Your task to perform on an android device: snooze an email in the gmail app Image 0: 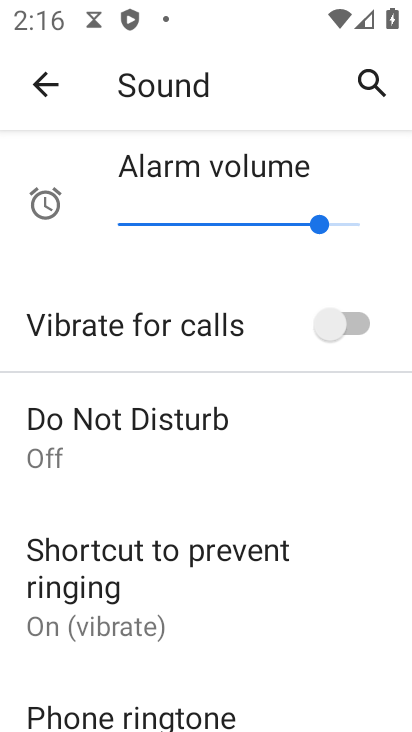
Step 0: press home button
Your task to perform on an android device: snooze an email in the gmail app Image 1: 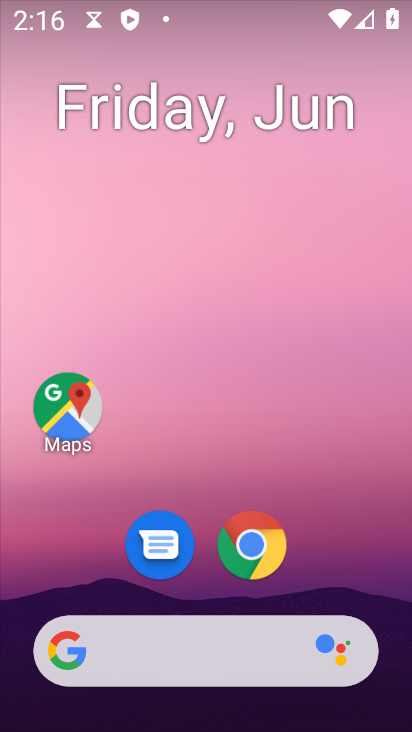
Step 1: drag from (213, 591) to (277, 75)
Your task to perform on an android device: snooze an email in the gmail app Image 2: 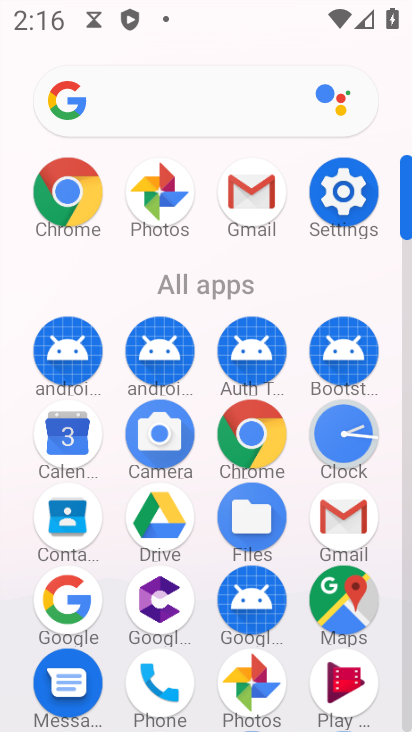
Step 2: click (350, 528)
Your task to perform on an android device: snooze an email in the gmail app Image 3: 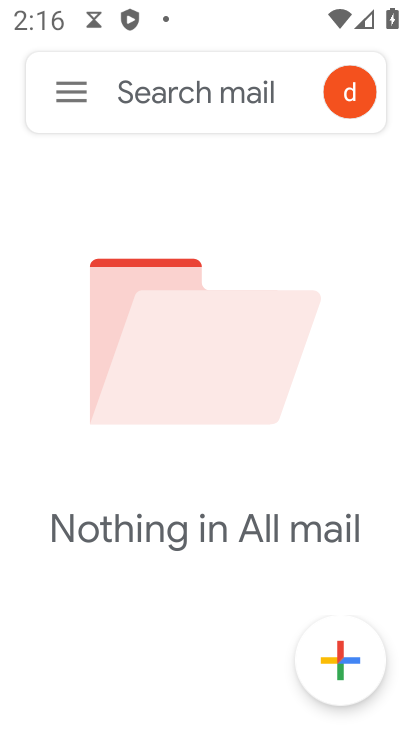
Step 3: click (64, 92)
Your task to perform on an android device: snooze an email in the gmail app Image 4: 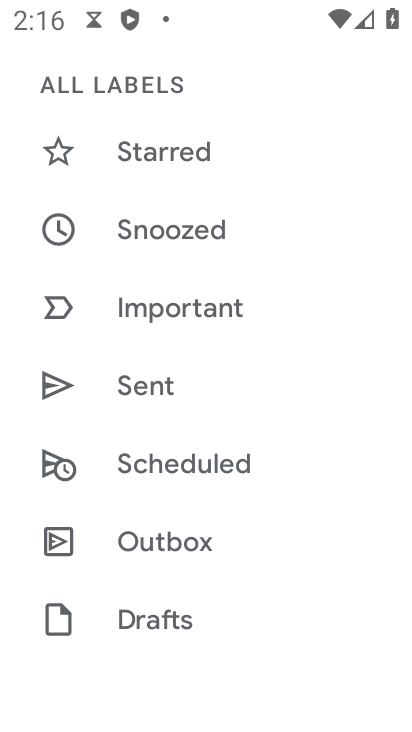
Step 4: drag from (171, 575) to (236, 170)
Your task to perform on an android device: snooze an email in the gmail app Image 5: 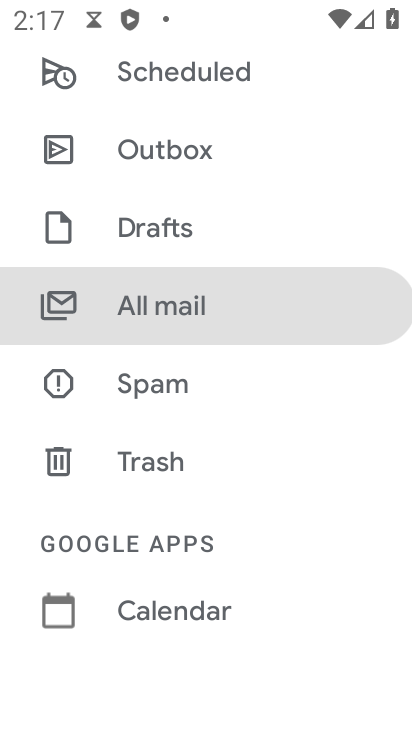
Step 5: click (171, 609)
Your task to perform on an android device: snooze an email in the gmail app Image 6: 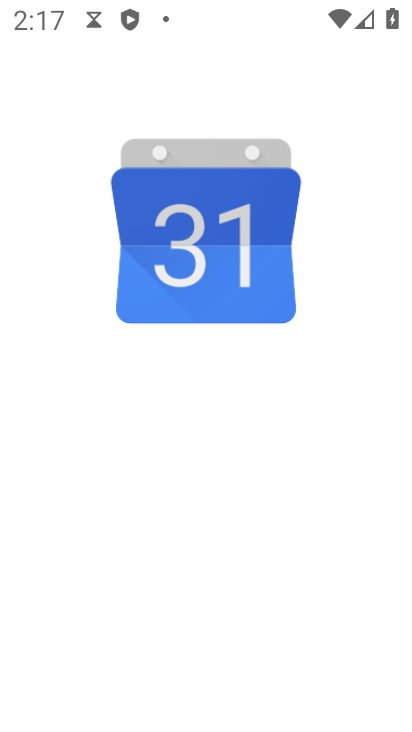
Step 6: task complete